Your task to perform on an android device: Open the phone app and click the voicemail tab. Image 0: 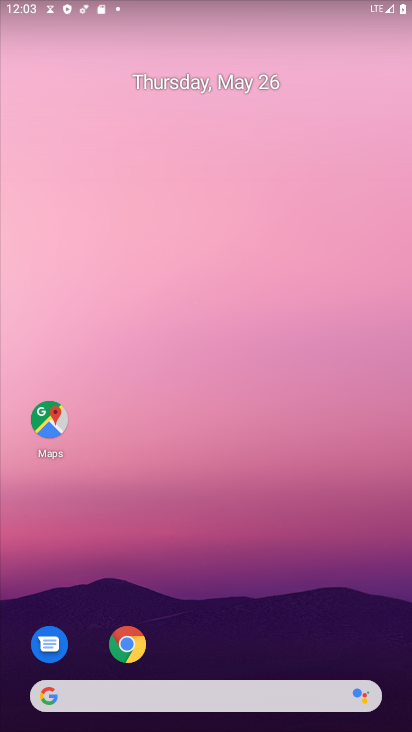
Step 0: drag from (257, 623) to (325, 84)
Your task to perform on an android device: Open the phone app and click the voicemail tab. Image 1: 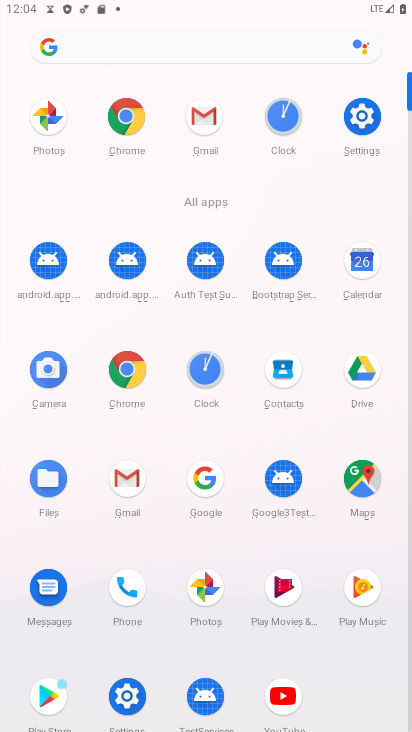
Step 1: click (123, 588)
Your task to perform on an android device: Open the phone app and click the voicemail tab. Image 2: 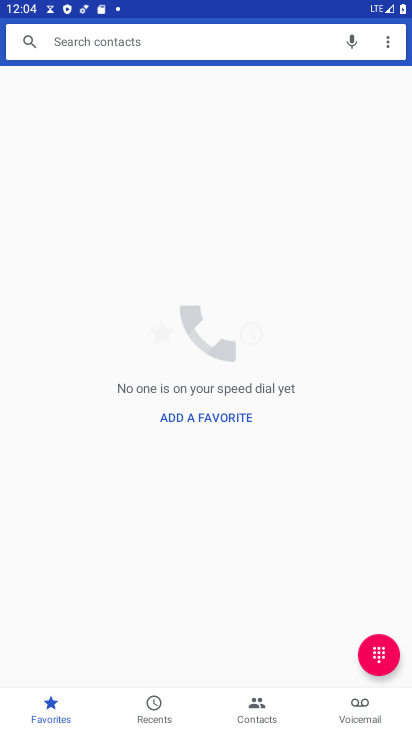
Step 2: click (355, 703)
Your task to perform on an android device: Open the phone app and click the voicemail tab. Image 3: 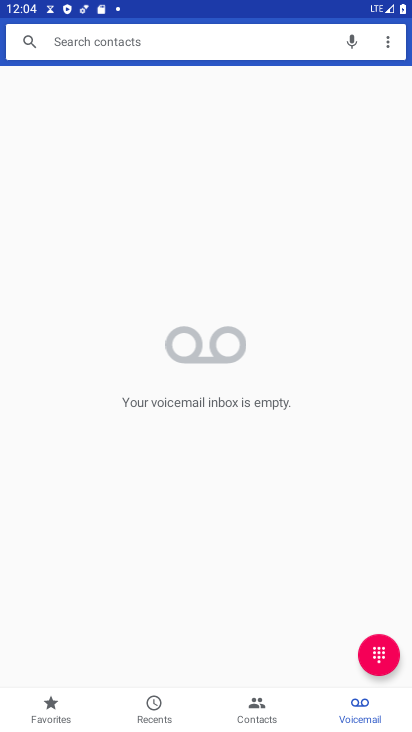
Step 3: task complete